Your task to perform on an android device: Go to CNN.com Image 0: 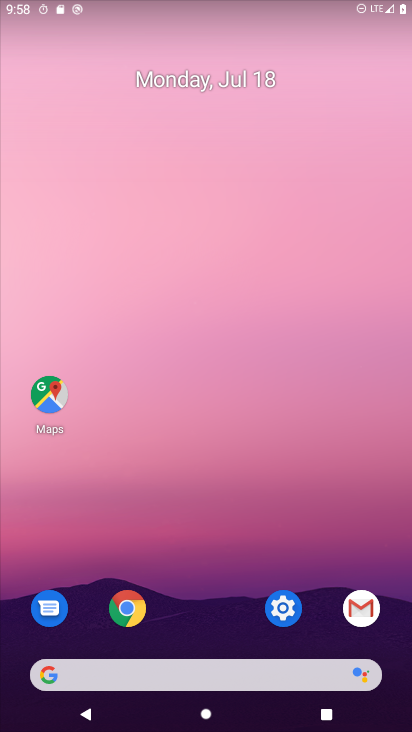
Step 0: press home button
Your task to perform on an android device: Go to CNN.com Image 1: 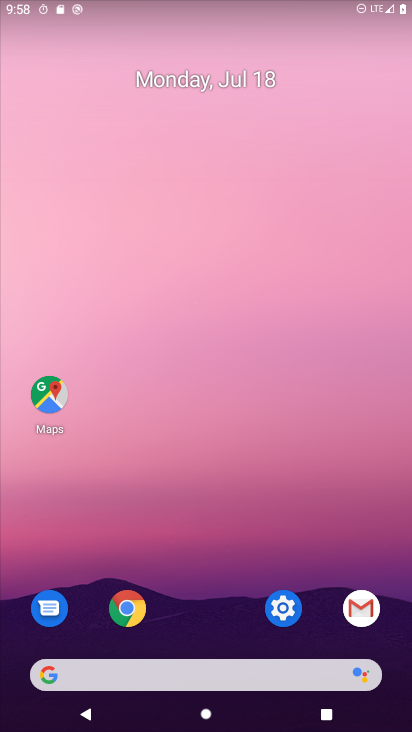
Step 1: click (134, 607)
Your task to perform on an android device: Go to CNN.com Image 2: 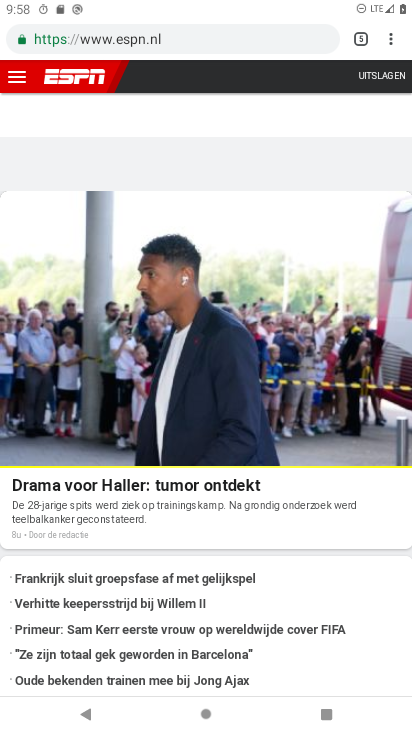
Step 2: click (191, 38)
Your task to perform on an android device: Go to CNN.com Image 3: 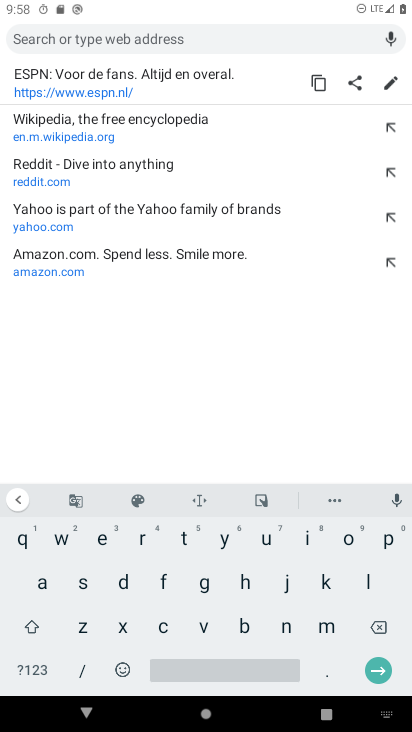
Step 3: click (155, 622)
Your task to perform on an android device: Go to CNN.com Image 4: 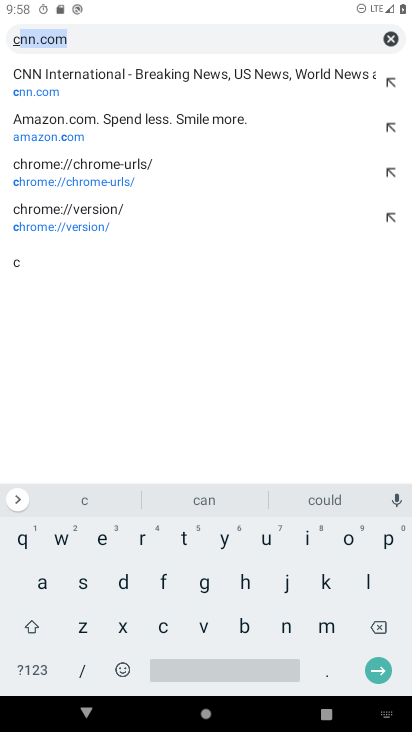
Step 4: click (110, 26)
Your task to perform on an android device: Go to CNN.com Image 5: 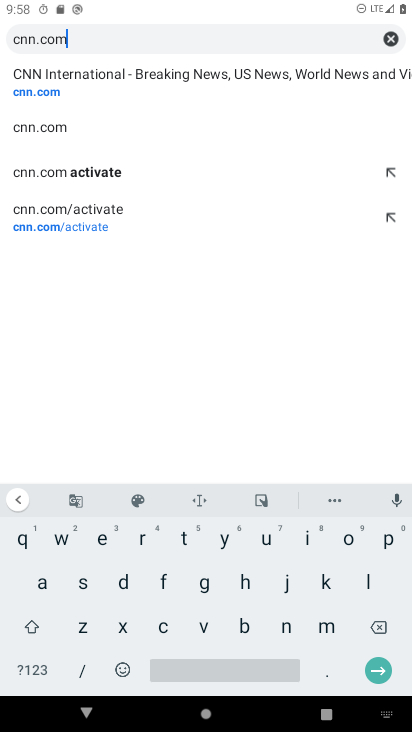
Step 5: click (386, 665)
Your task to perform on an android device: Go to CNN.com Image 6: 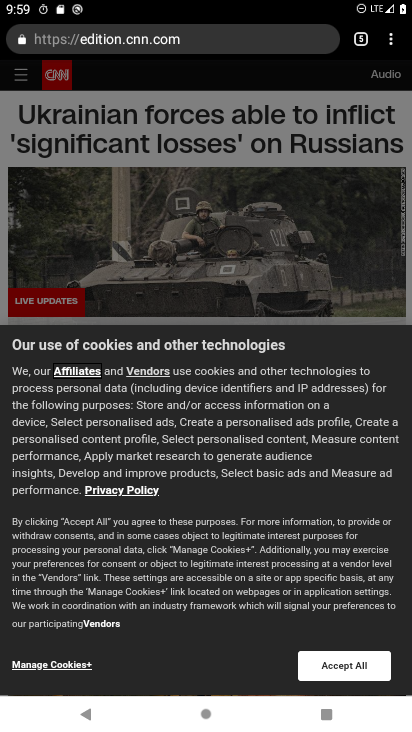
Step 6: click (321, 662)
Your task to perform on an android device: Go to CNN.com Image 7: 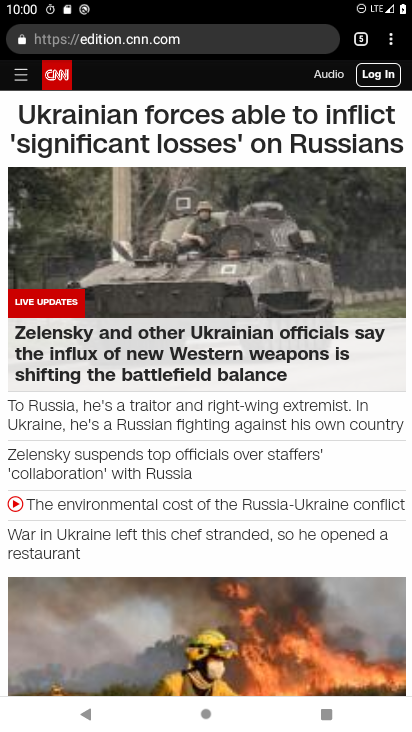
Step 7: task complete